Your task to perform on an android device: Clear all items from cart on costco.com. Search for "beats solo 3" on costco.com, select the first entry, and add it to the cart. Image 0: 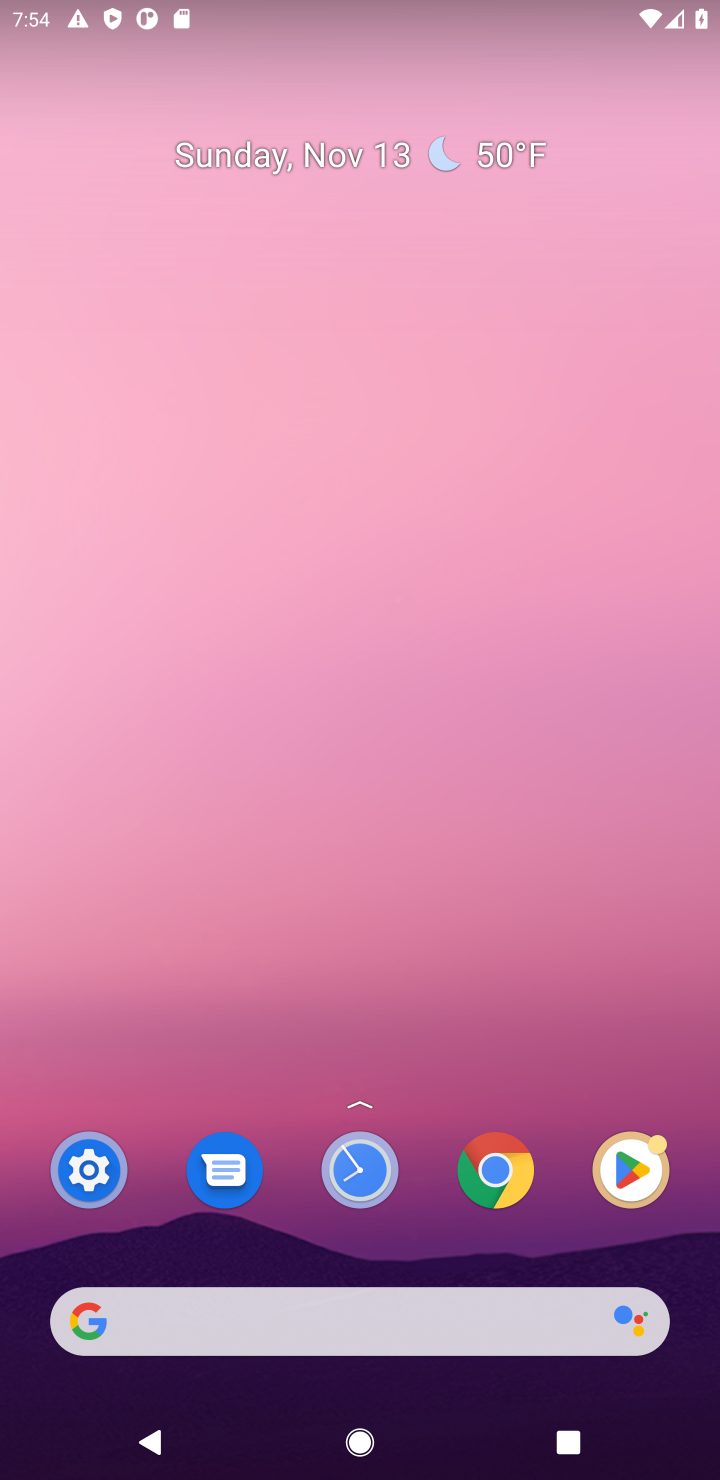
Step 0: click (364, 1355)
Your task to perform on an android device: Clear all items from cart on costco.com. Search for "beats solo 3" on costco.com, select the first entry, and add it to the cart. Image 1: 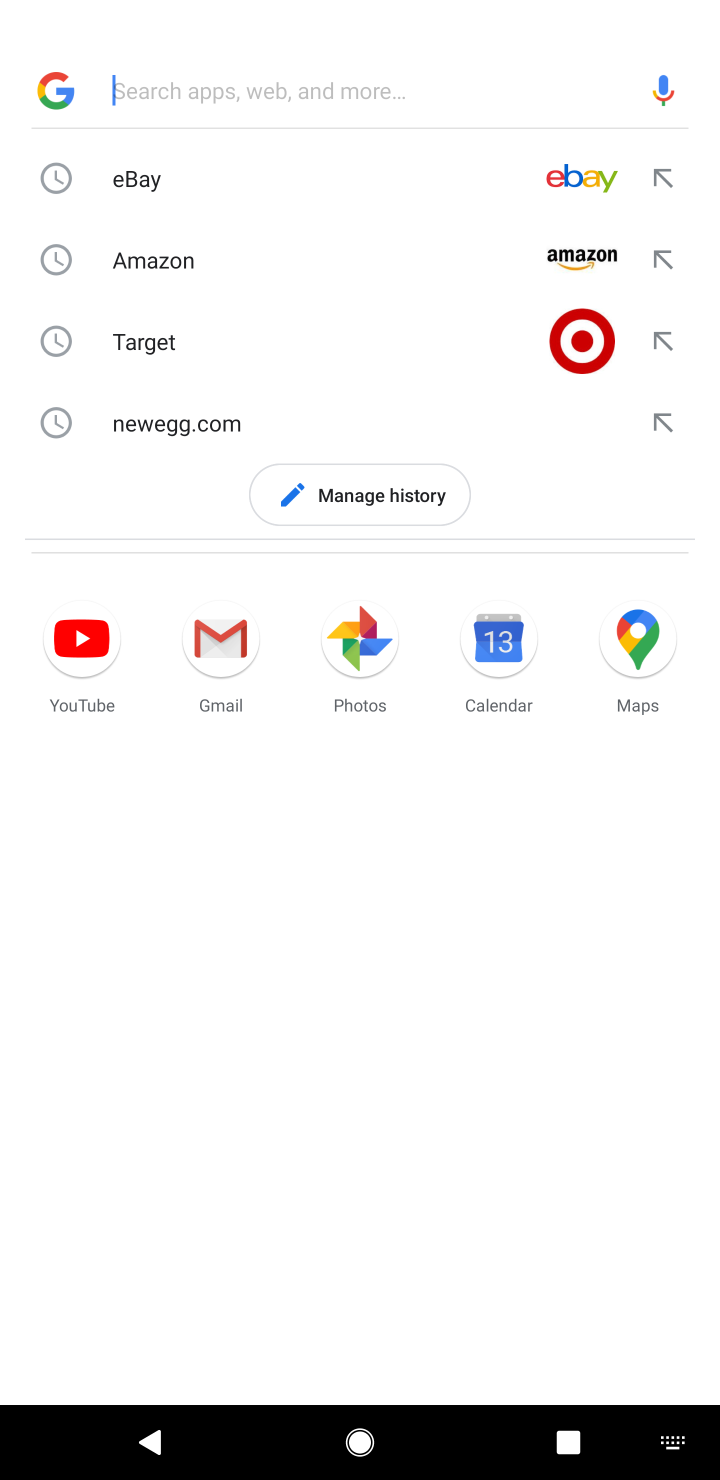
Step 1: type "costco.com"
Your task to perform on an android device: Clear all items from cart on costco.com. Search for "beats solo 3" on costco.com, select the first entry, and add it to the cart. Image 2: 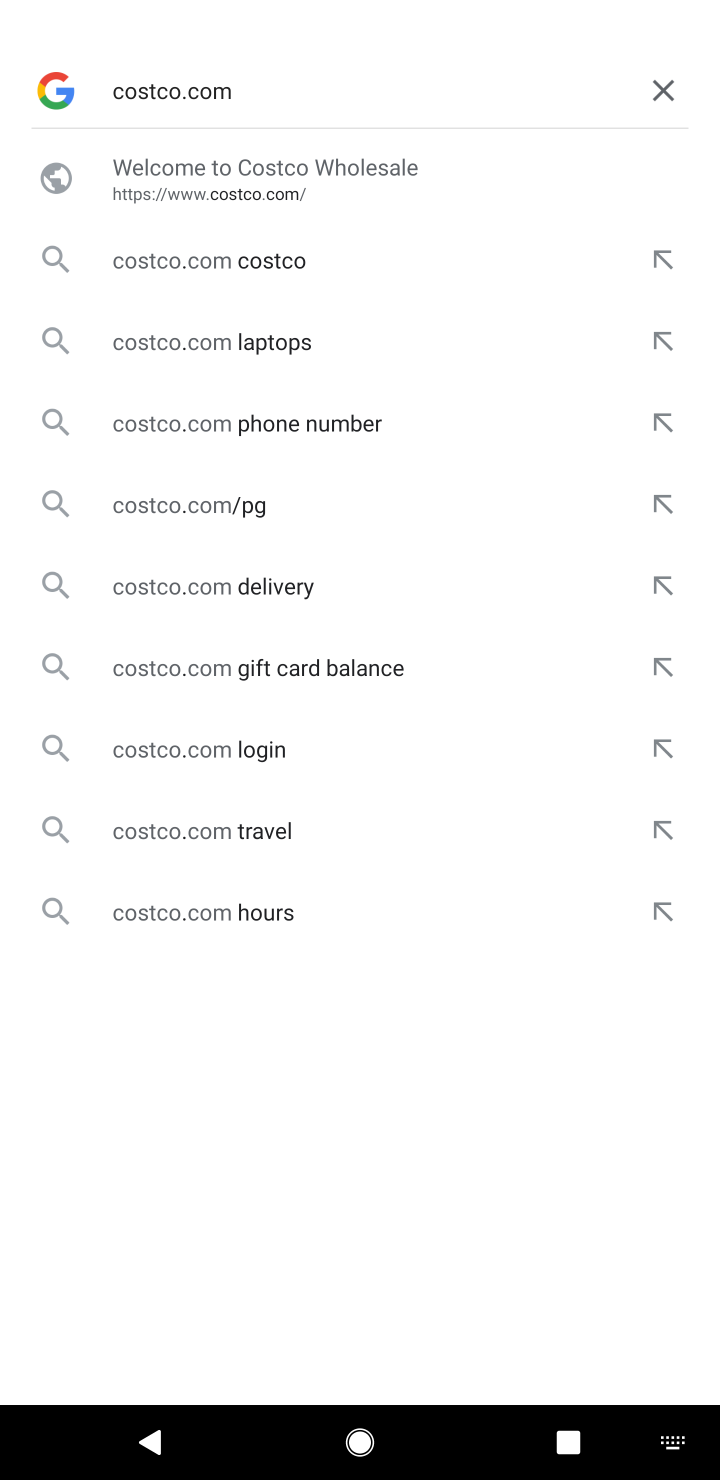
Step 2: click (304, 158)
Your task to perform on an android device: Clear all items from cart on costco.com. Search for "beats solo 3" on costco.com, select the first entry, and add it to the cart. Image 3: 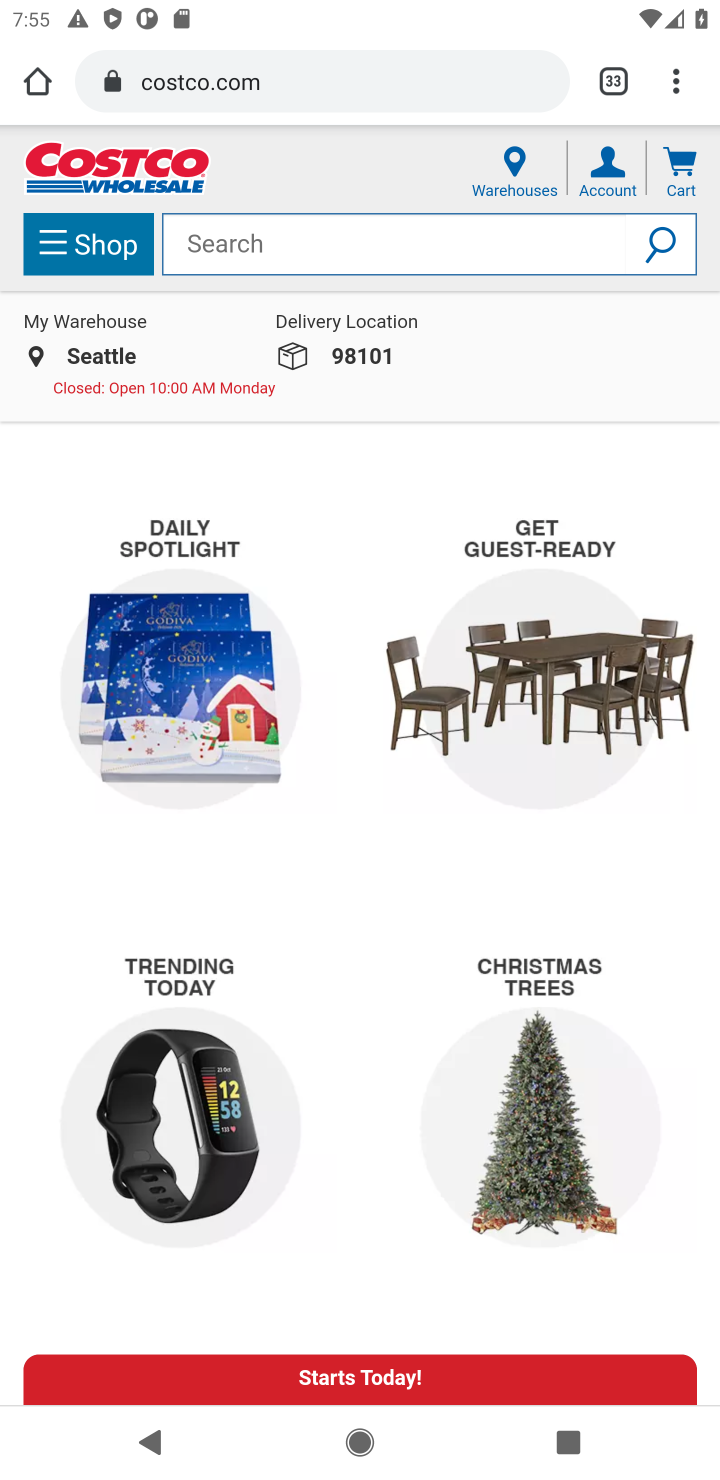
Step 3: task complete